Your task to perform on an android device: remove spam from my inbox in the gmail app Image 0: 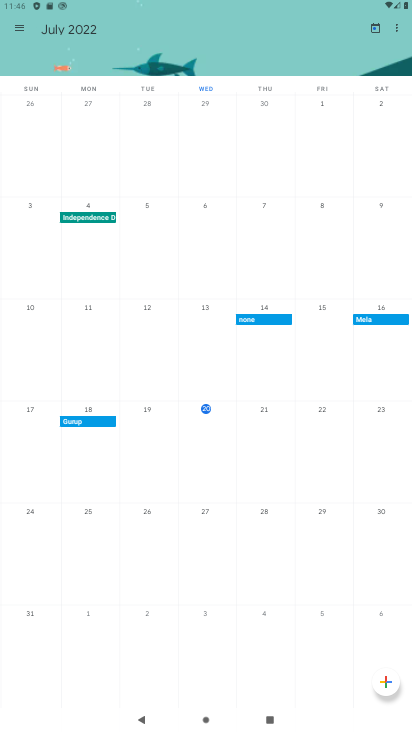
Step 0: press home button
Your task to perform on an android device: remove spam from my inbox in the gmail app Image 1: 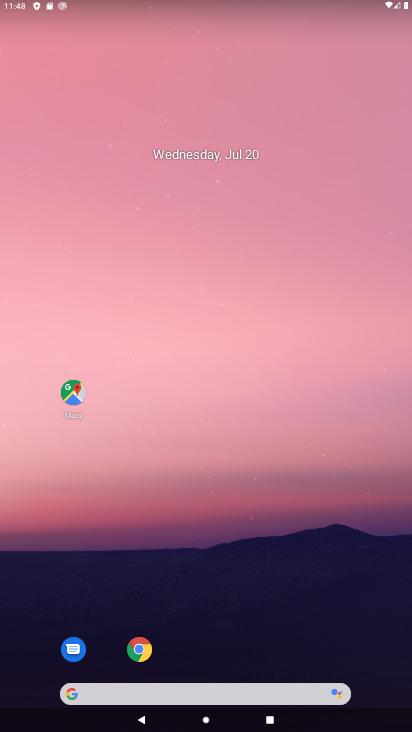
Step 1: drag from (234, 664) to (216, 64)
Your task to perform on an android device: remove spam from my inbox in the gmail app Image 2: 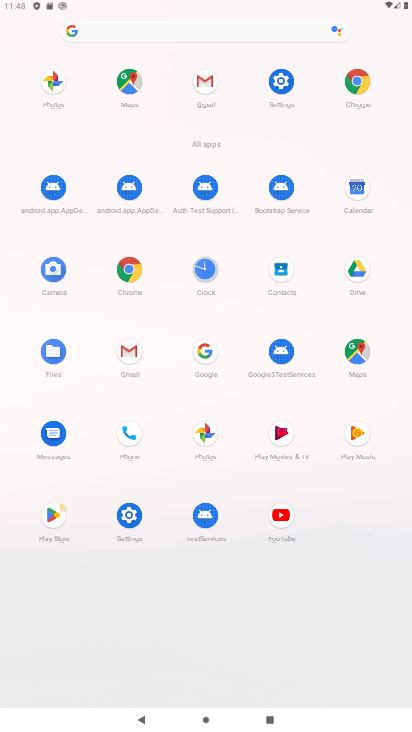
Step 2: click (212, 102)
Your task to perform on an android device: remove spam from my inbox in the gmail app Image 3: 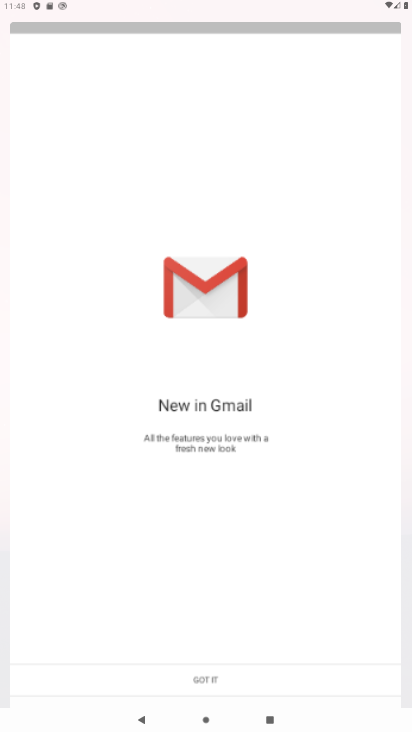
Step 3: task complete